Your task to perform on an android device: turn pop-ups on in chrome Image 0: 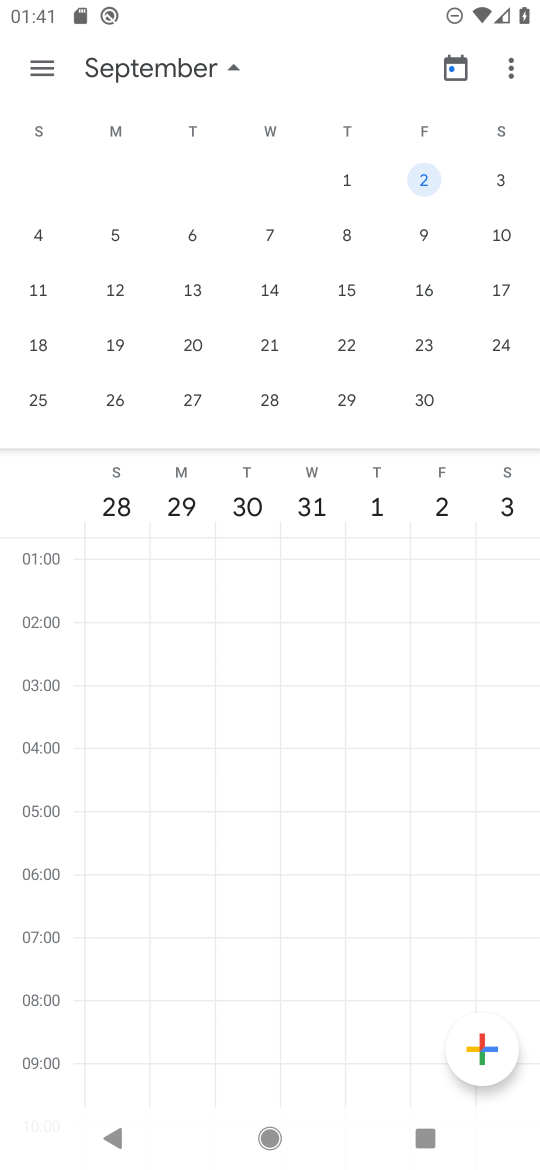
Step 0: press home button
Your task to perform on an android device: turn pop-ups on in chrome Image 1: 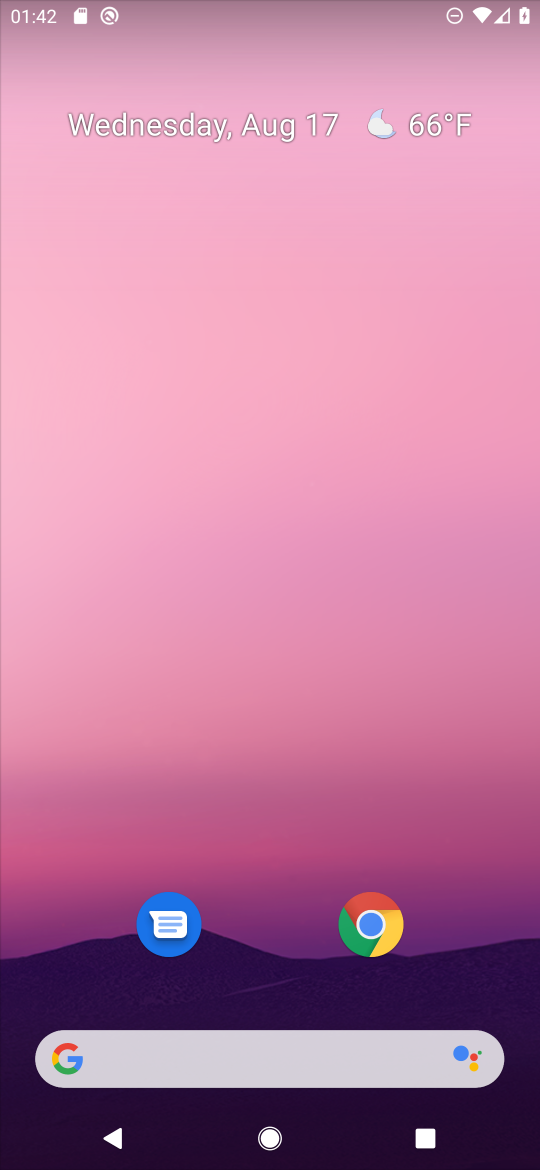
Step 1: click (372, 933)
Your task to perform on an android device: turn pop-ups on in chrome Image 2: 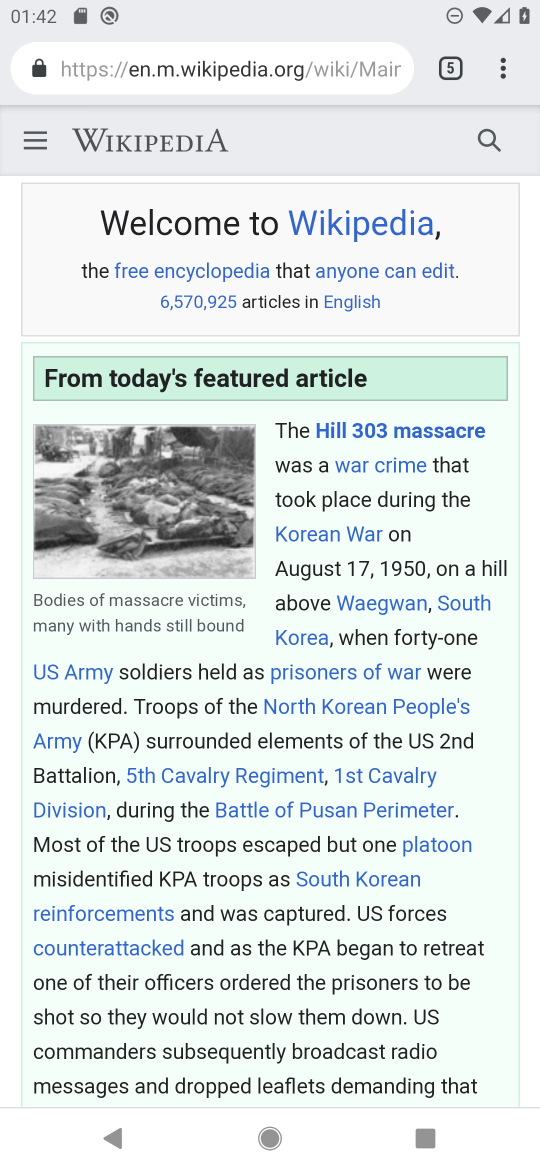
Step 2: click (512, 57)
Your task to perform on an android device: turn pop-ups on in chrome Image 3: 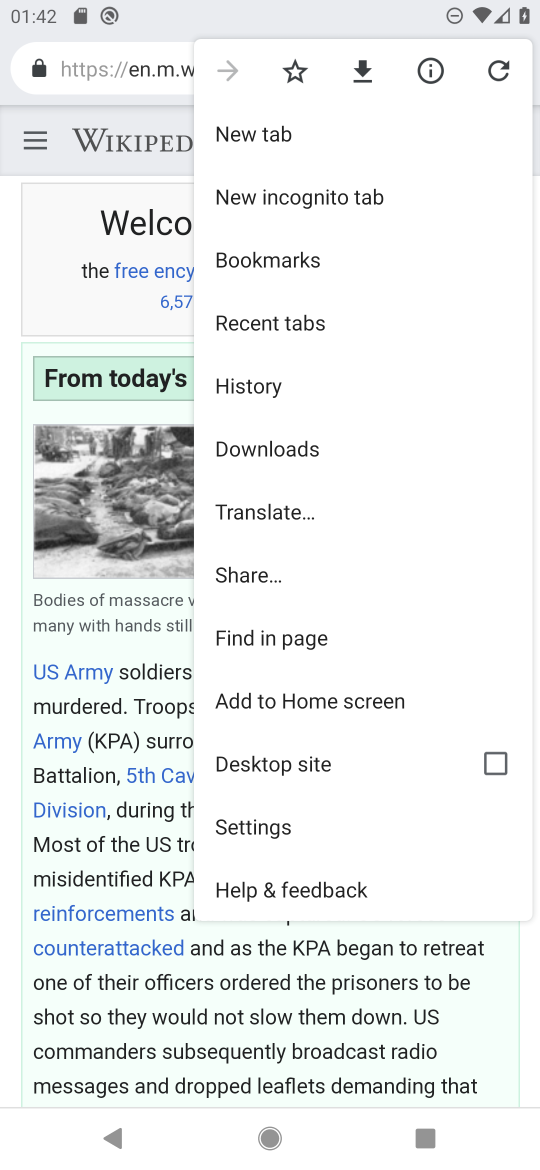
Step 3: click (251, 818)
Your task to perform on an android device: turn pop-ups on in chrome Image 4: 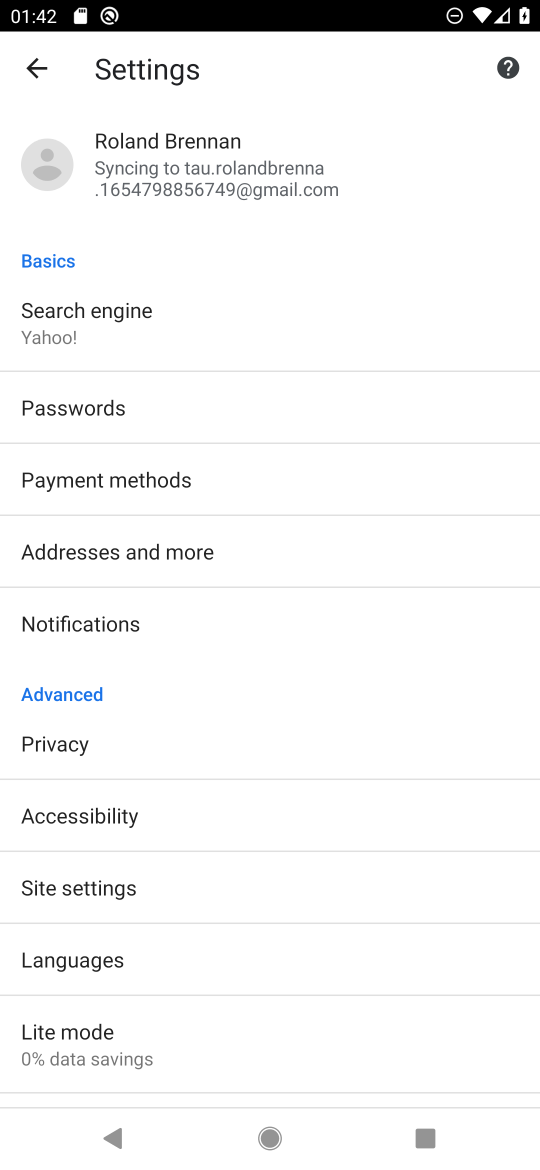
Step 4: click (131, 875)
Your task to perform on an android device: turn pop-ups on in chrome Image 5: 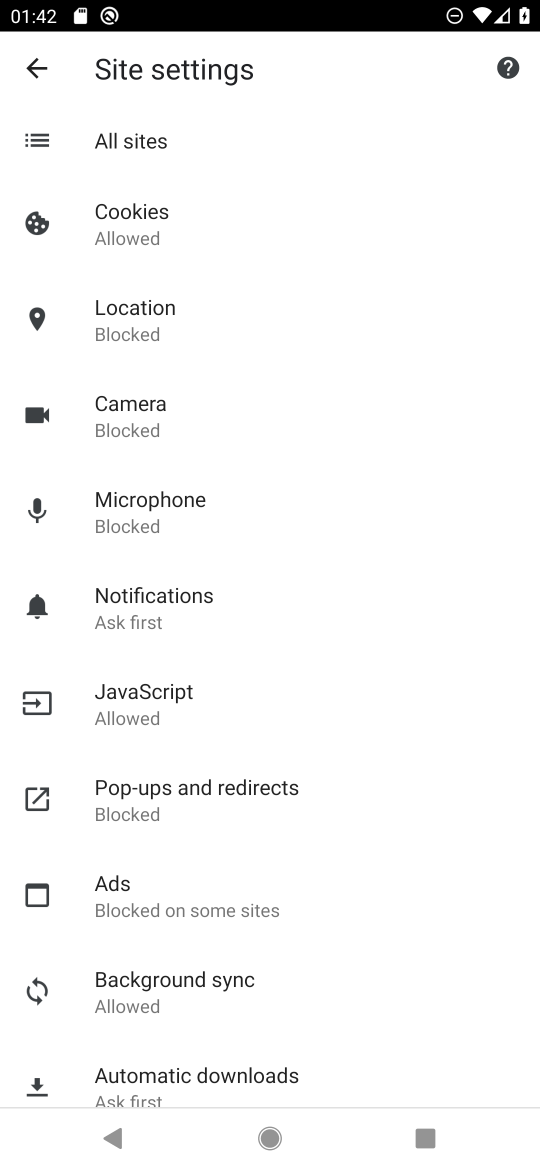
Step 5: click (237, 796)
Your task to perform on an android device: turn pop-ups on in chrome Image 6: 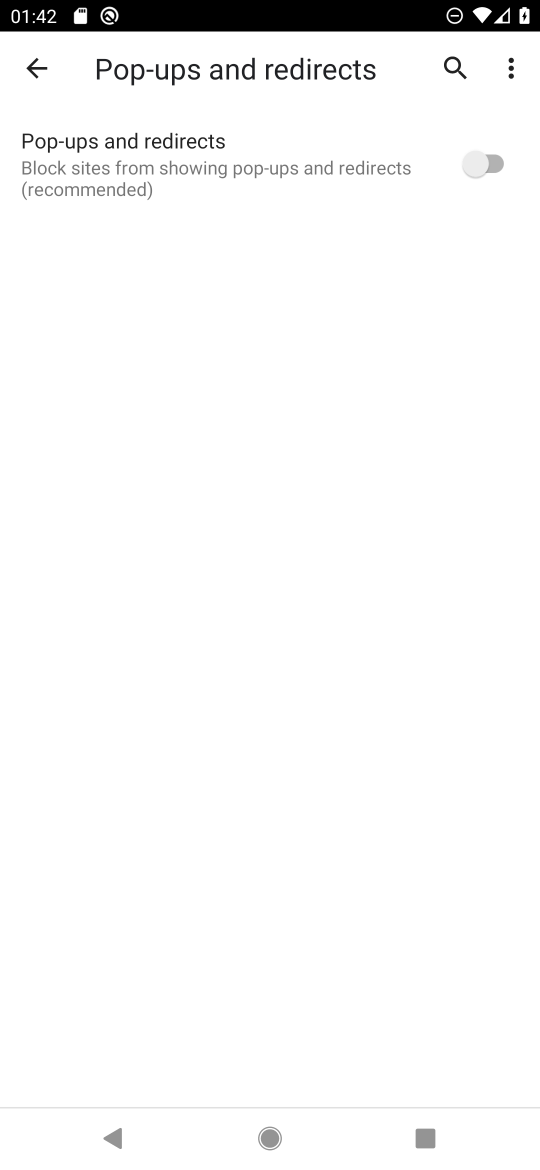
Step 6: click (503, 167)
Your task to perform on an android device: turn pop-ups on in chrome Image 7: 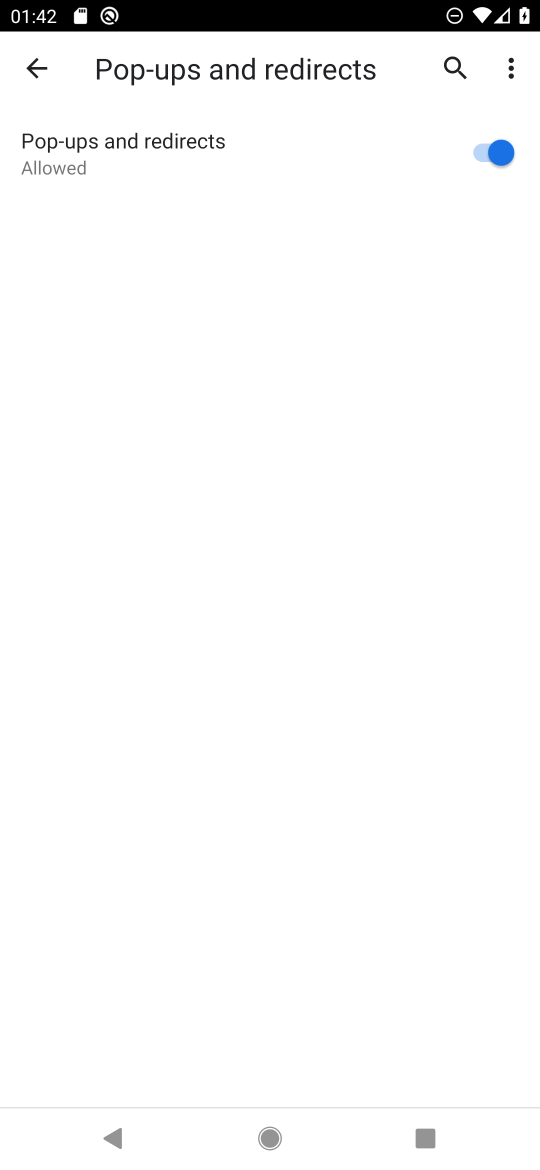
Step 7: task complete